Your task to perform on an android device: Go to battery settings Image 0: 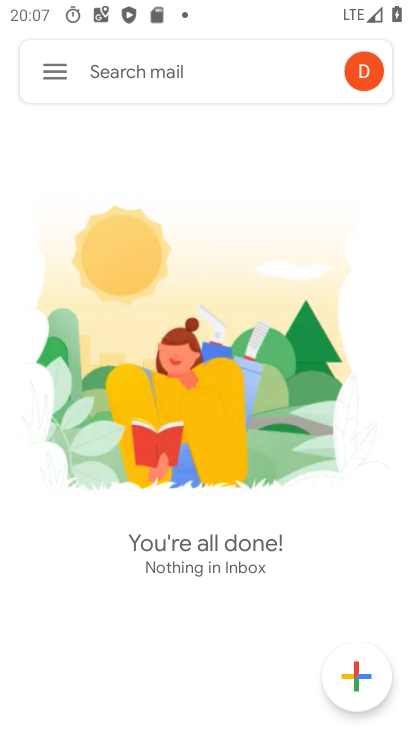
Step 0: drag from (231, 10) to (79, 720)
Your task to perform on an android device: Go to battery settings Image 1: 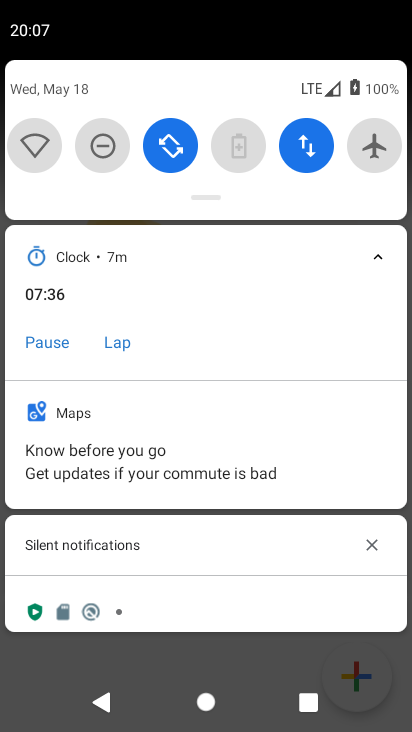
Step 1: drag from (227, 109) to (242, 562)
Your task to perform on an android device: Go to battery settings Image 2: 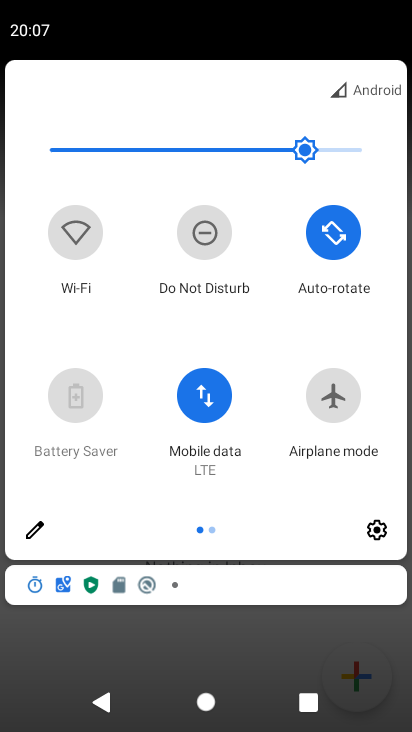
Step 2: click (375, 535)
Your task to perform on an android device: Go to battery settings Image 3: 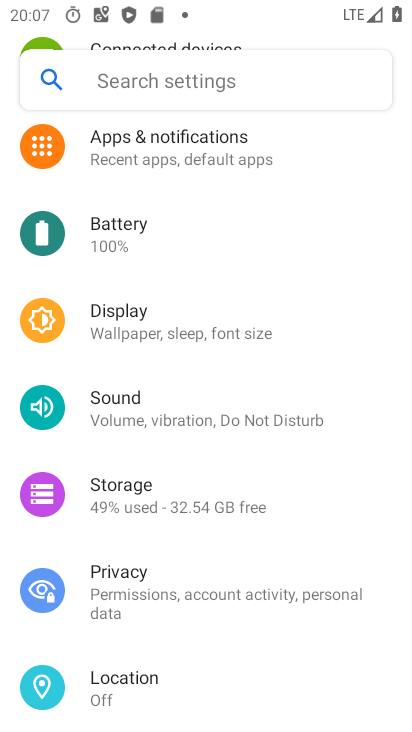
Step 3: click (148, 241)
Your task to perform on an android device: Go to battery settings Image 4: 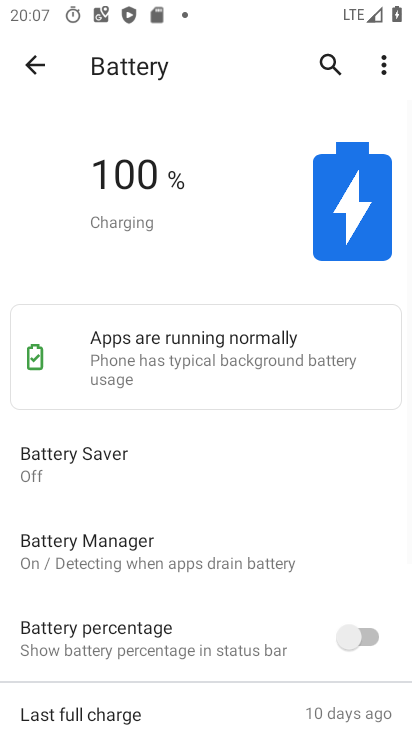
Step 4: task complete